Your task to perform on an android device: change alarm snooze length Image 0: 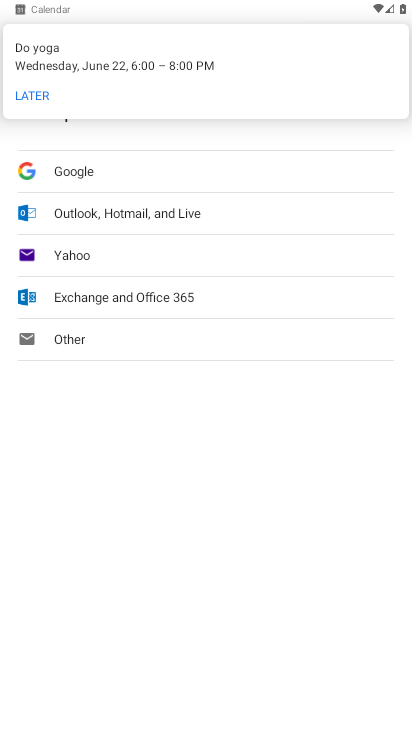
Step 0: press home button
Your task to perform on an android device: change alarm snooze length Image 1: 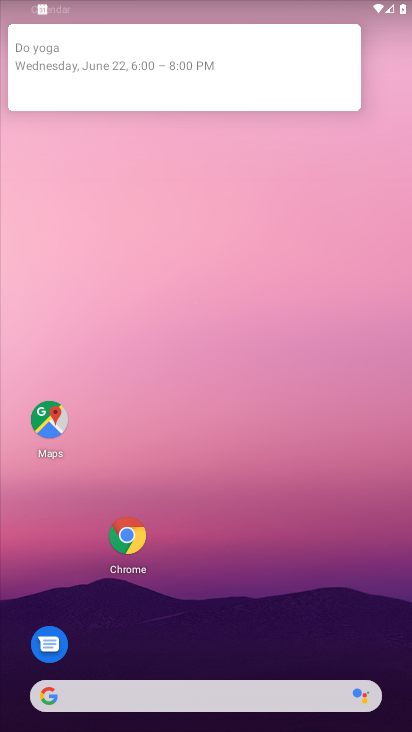
Step 1: drag from (178, 650) to (181, 311)
Your task to perform on an android device: change alarm snooze length Image 2: 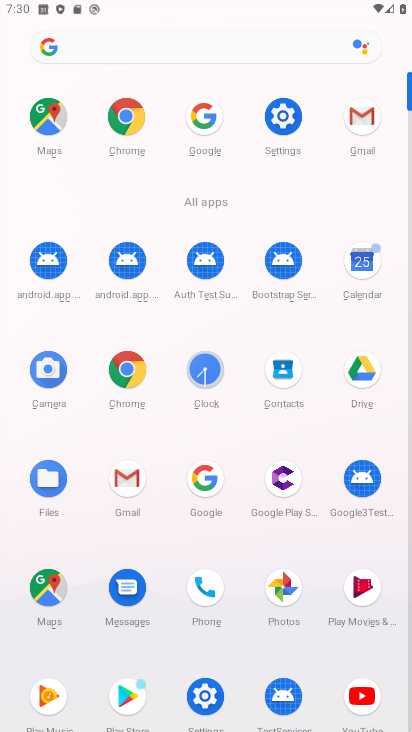
Step 2: click (211, 367)
Your task to perform on an android device: change alarm snooze length Image 3: 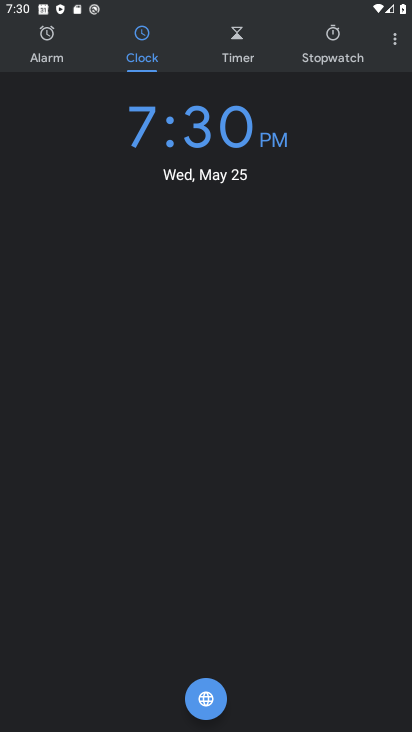
Step 3: click (392, 38)
Your task to perform on an android device: change alarm snooze length Image 4: 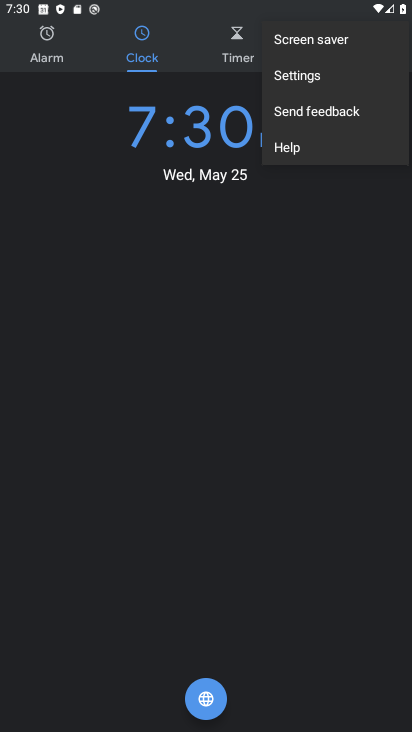
Step 4: click (307, 78)
Your task to perform on an android device: change alarm snooze length Image 5: 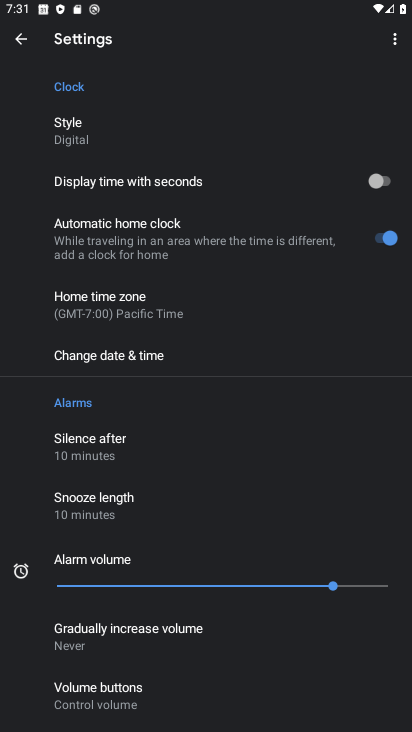
Step 5: click (98, 508)
Your task to perform on an android device: change alarm snooze length Image 6: 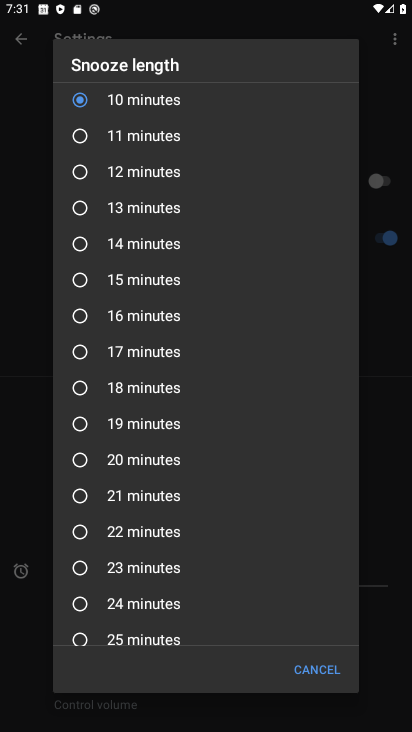
Step 6: click (86, 322)
Your task to perform on an android device: change alarm snooze length Image 7: 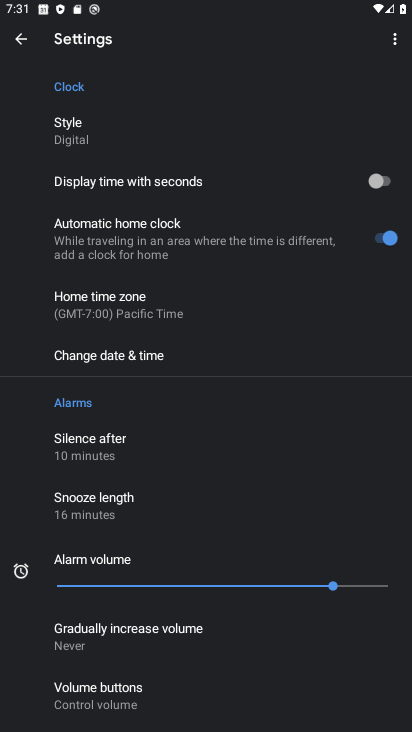
Step 7: task complete